Your task to perform on an android device: Open the stopwatch Image 0: 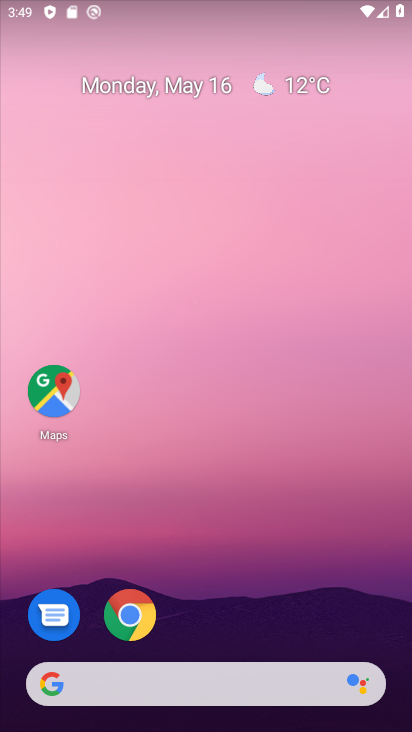
Step 0: drag from (123, 176) to (113, 131)
Your task to perform on an android device: Open the stopwatch Image 1: 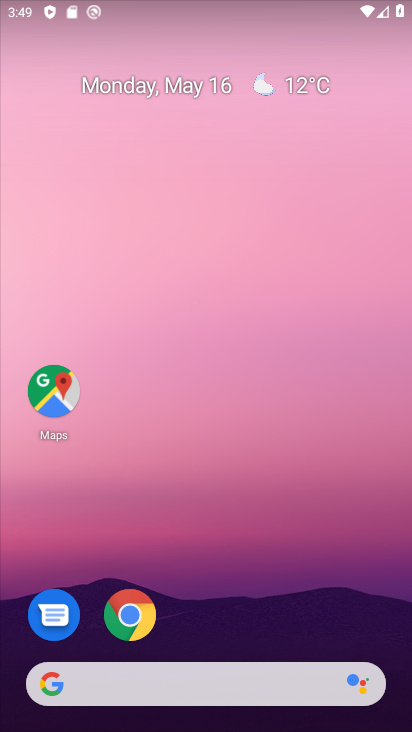
Step 1: drag from (290, 605) to (139, 75)
Your task to perform on an android device: Open the stopwatch Image 2: 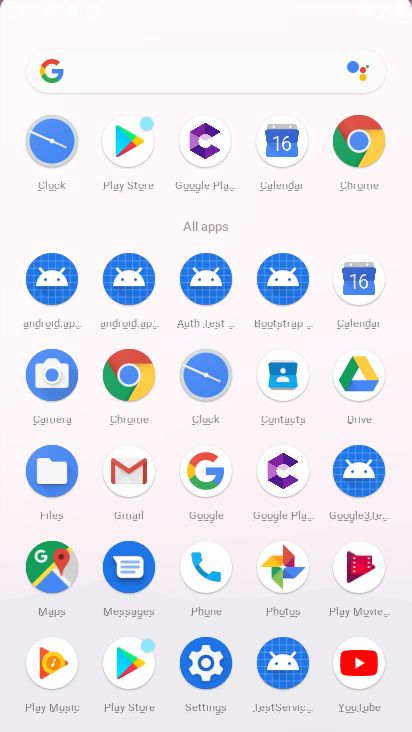
Step 2: drag from (261, 505) to (204, 22)
Your task to perform on an android device: Open the stopwatch Image 3: 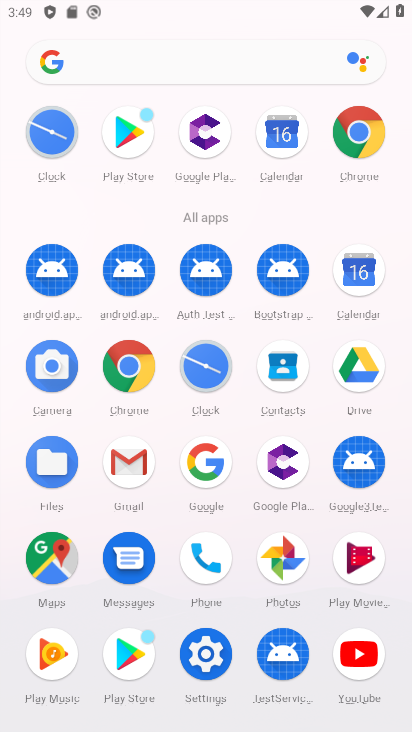
Step 3: click (199, 375)
Your task to perform on an android device: Open the stopwatch Image 4: 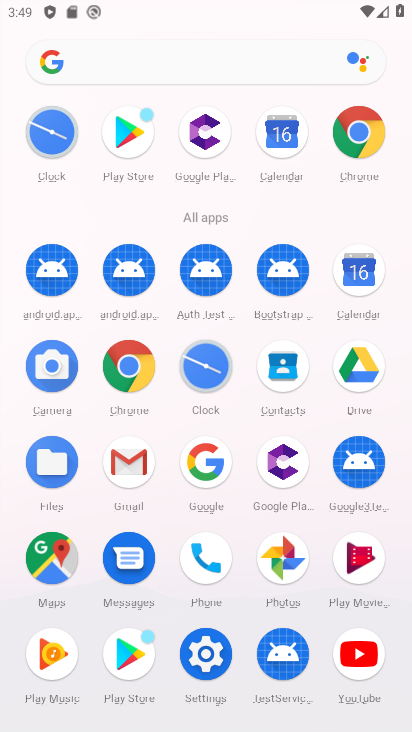
Step 4: click (202, 373)
Your task to perform on an android device: Open the stopwatch Image 5: 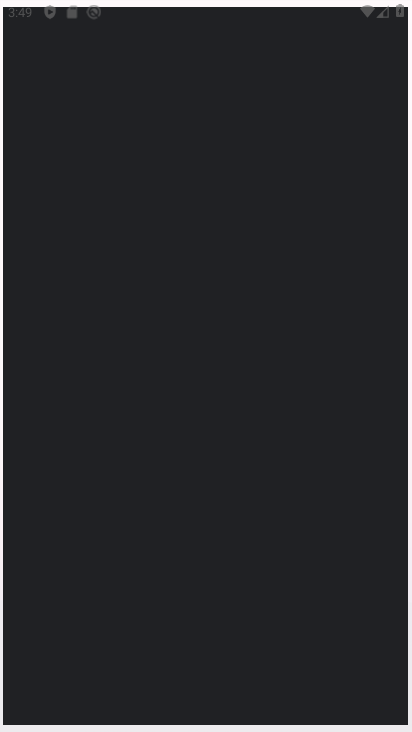
Step 5: click (201, 369)
Your task to perform on an android device: Open the stopwatch Image 6: 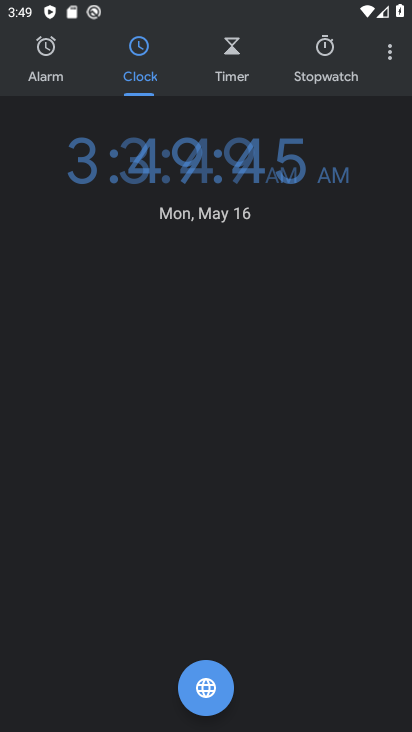
Step 6: click (203, 367)
Your task to perform on an android device: Open the stopwatch Image 7: 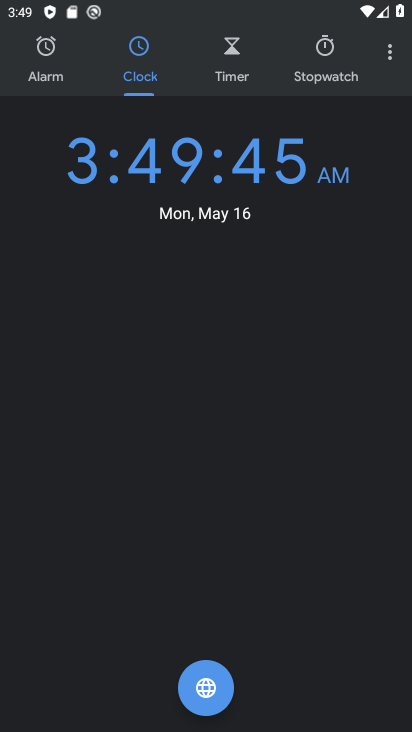
Step 7: click (211, 366)
Your task to perform on an android device: Open the stopwatch Image 8: 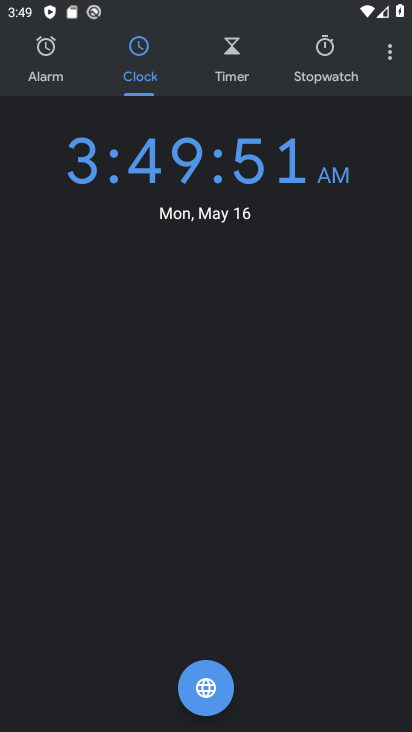
Step 8: click (320, 70)
Your task to perform on an android device: Open the stopwatch Image 9: 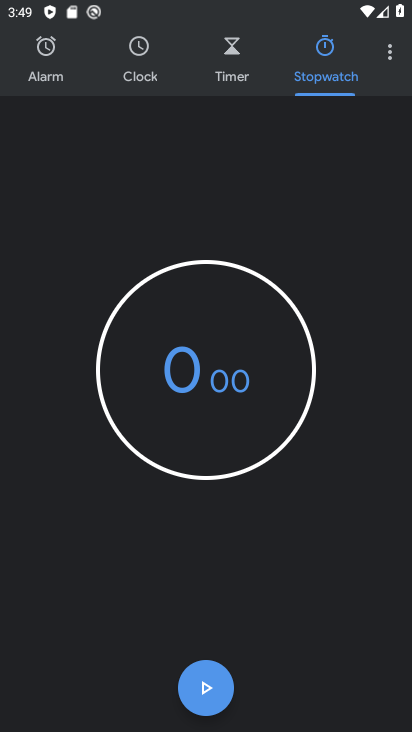
Step 9: click (209, 687)
Your task to perform on an android device: Open the stopwatch Image 10: 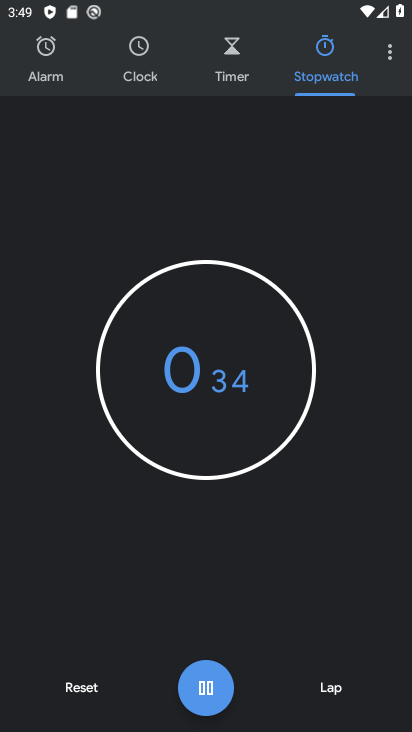
Step 10: click (221, 688)
Your task to perform on an android device: Open the stopwatch Image 11: 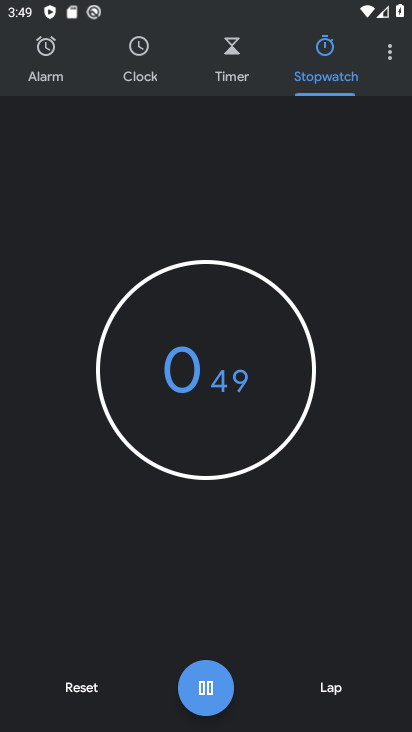
Step 11: click (233, 684)
Your task to perform on an android device: Open the stopwatch Image 12: 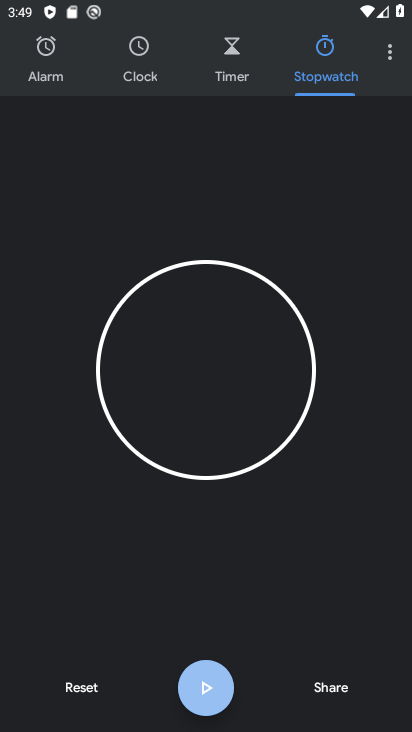
Step 12: click (238, 683)
Your task to perform on an android device: Open the stopwatch Image 13: 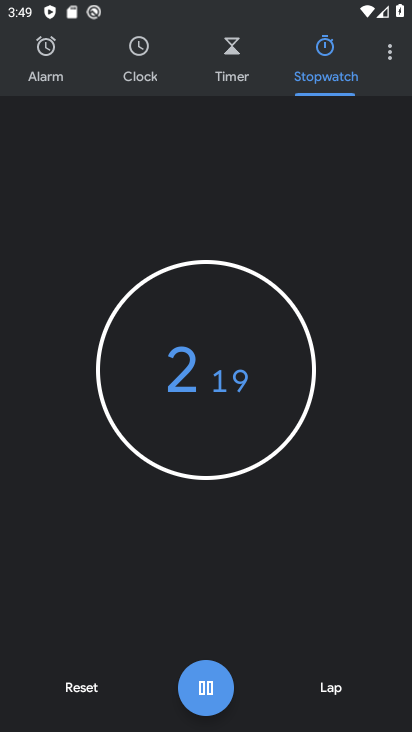
Step 13: click (205, 691)
Your task to perform on an android device: Open the stopwatch Image 14: 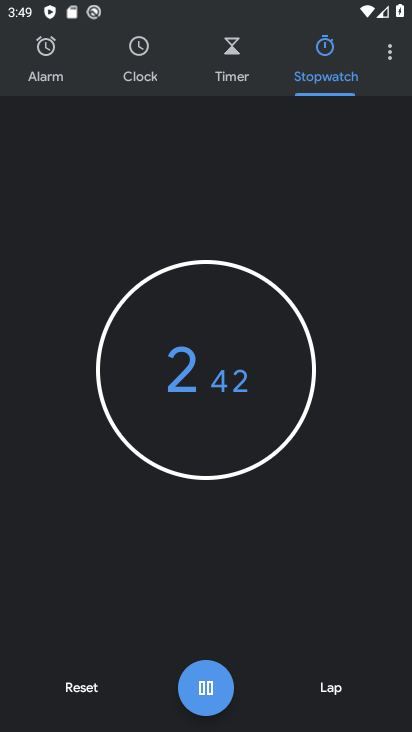
Step 14: click (204, 690)
Your task to perform on an android device: Open the stopwatch Image 15: 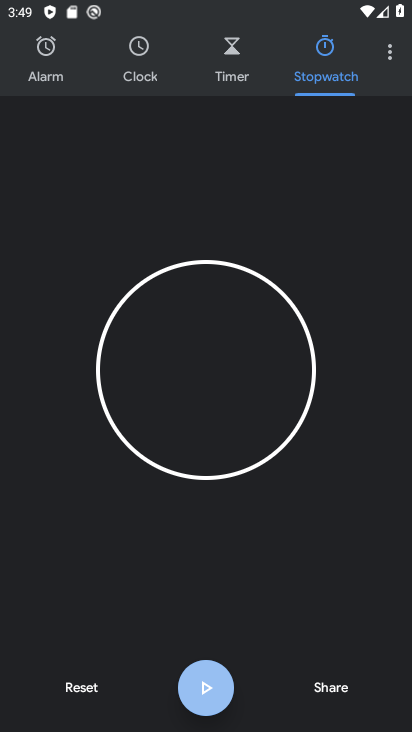
Step 15: click (199, 643)
Your task to perform on an android device: Open the stopwatch Image 16: 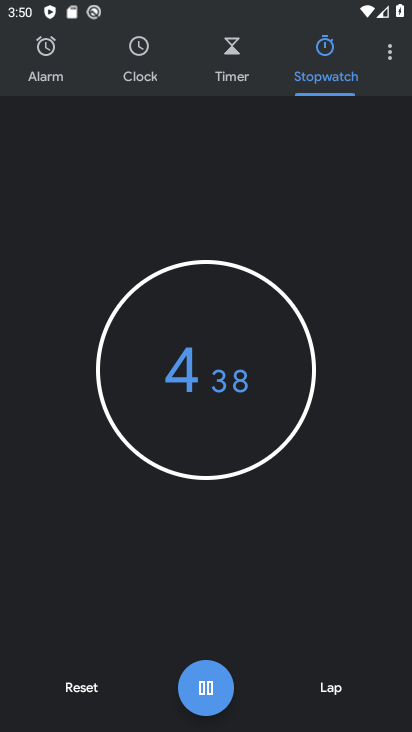
Step 16: click (203, 691)
Your task to perform on an android device: Open the stopwatch Image 17: 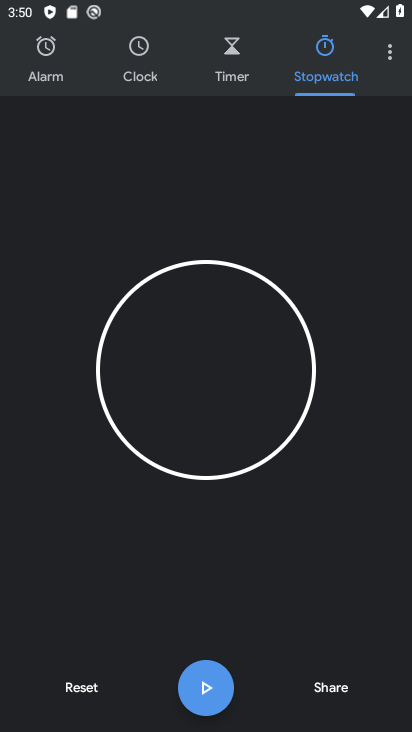
Step 17: task complete